Your task to perform on an android device: turn on wifi Image 0: 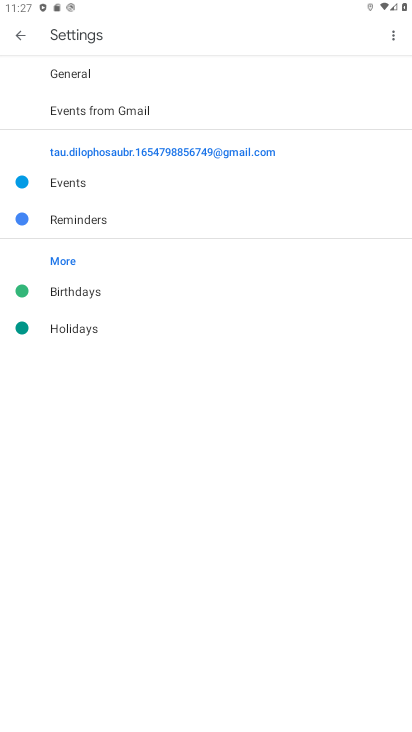
Step 0: press home button
Your task to perform on an android device: turn on wifi Image 1: 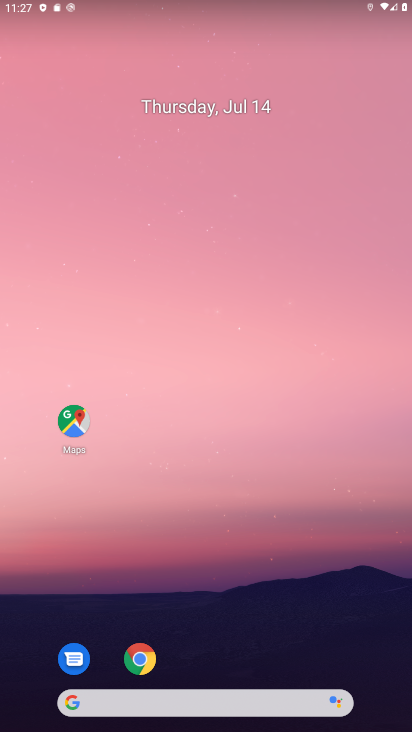
Step 1: drag from (246, 641) to (251, 235)
Your task to perform on an android device: turn on wifi Image 2: 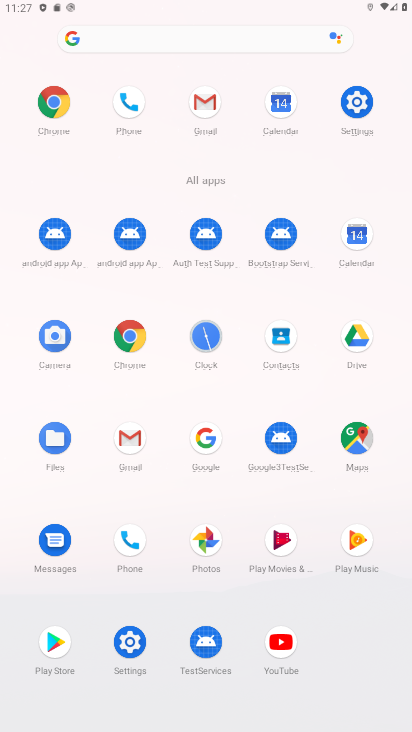
Step 2: click (366, 94)
Your task to perform on an android device: turn on wifi Image 3: 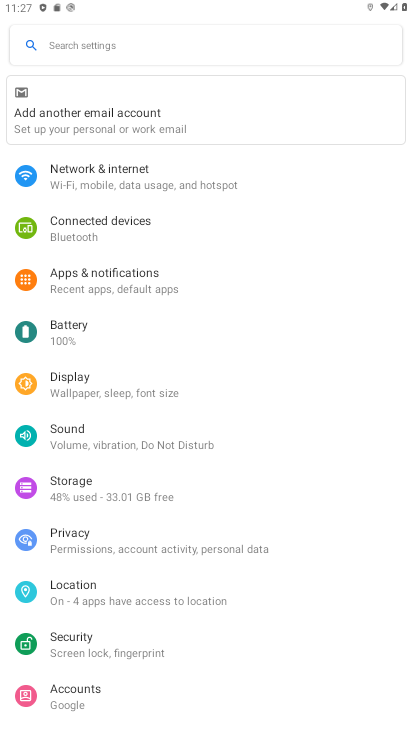
Step 3: click (85, 179)
Your task to perform on an android device: turn on wifi Image 4: 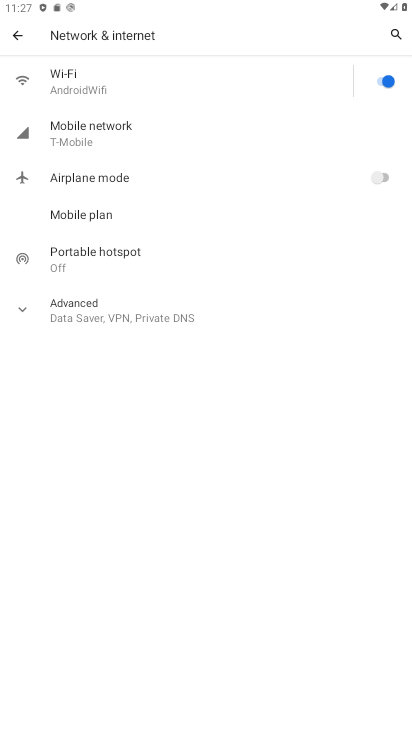
Step 4: click (124, 92)
Your task to perform on an android device: turn on wifi Image 5: 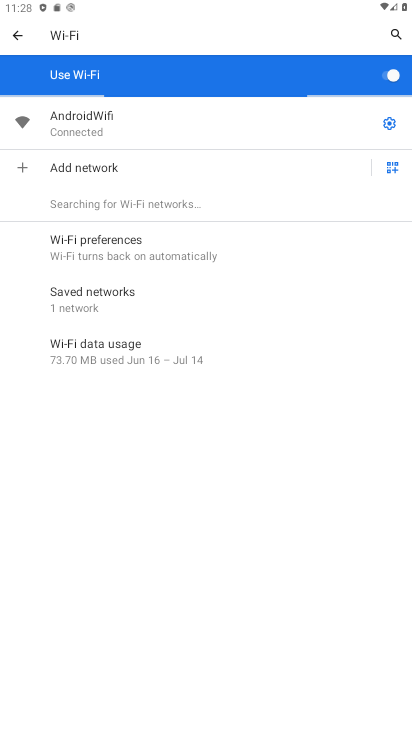
Step 5: task complete